Your task to perform on an android device: turn off airplane mode Image 0: 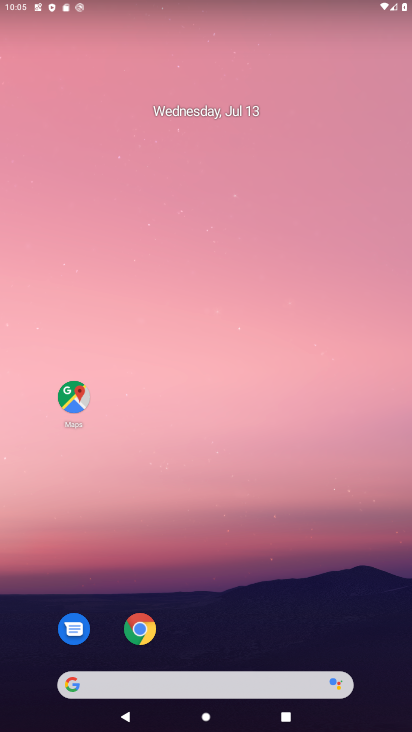
Step 0: drag from (293, 8) to (254, 379)
Your task to perform on an android device: turn off airplane mode Image 1: 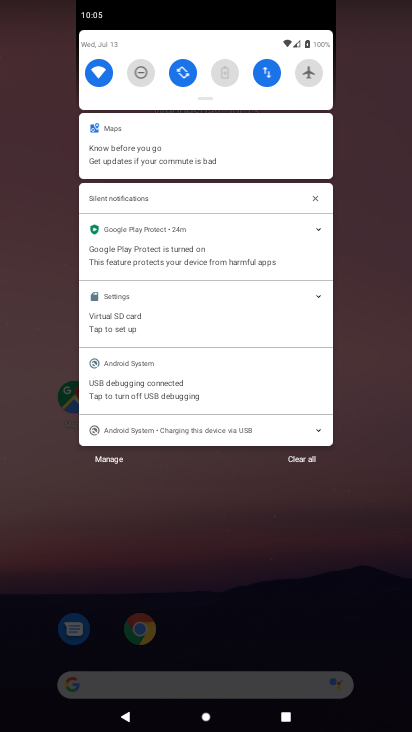
Step 1: task complete